Your task to perform on an android device: Open display settings Image 0: 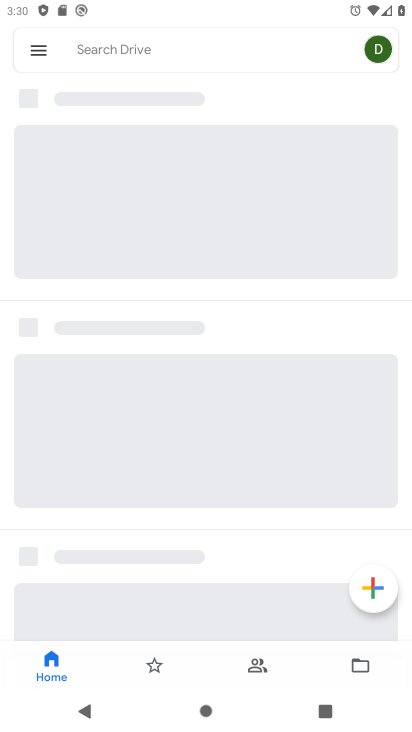
Step 0: press home button
Your task to perform on an android device: Open display settings Image 1: 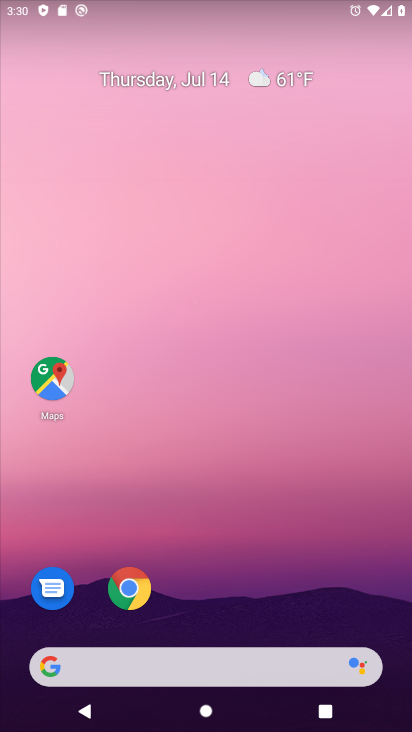
Step 1: drag from (304, 626) to (275, 163)
Your task to perform on an android device: Open display settings Image 2: 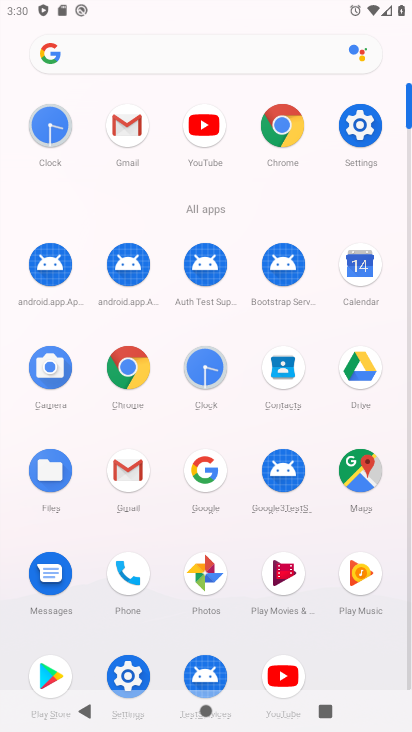
Step 2: click (359, 122)
Your task to perform on an android device: Open display settings Image 3: 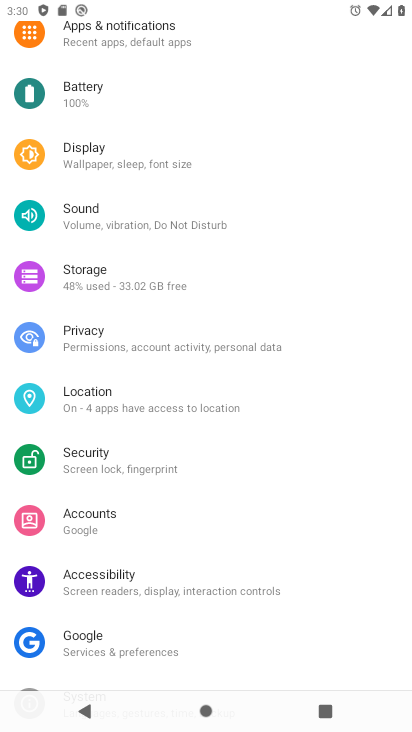
Step 3: click (123, 152)
Your task to perform on an android device: Open display settings Image 4: 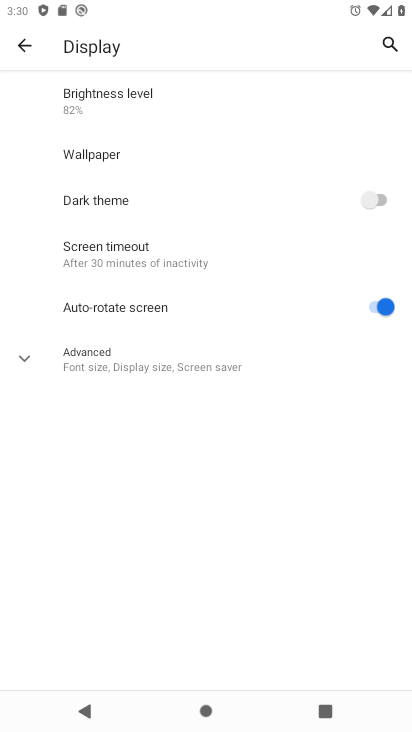
Step 4: task complete